Your task to perform on an android device: turn on javascript in the chrome app Image 0: 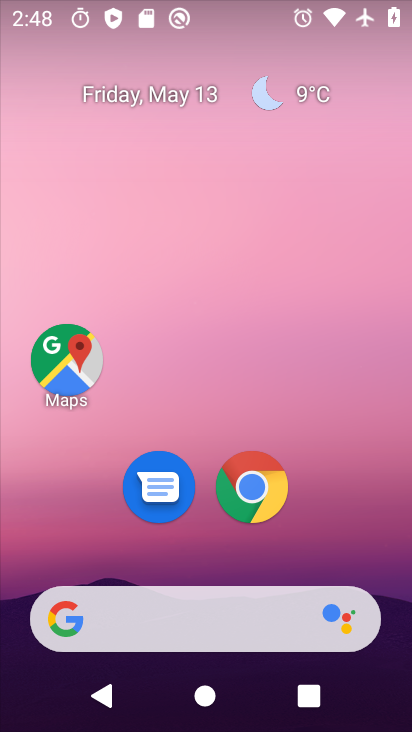
Step 0: click (253, 488)
Your task to perform on an android device: turn on javascript in the chrome app Image 1: 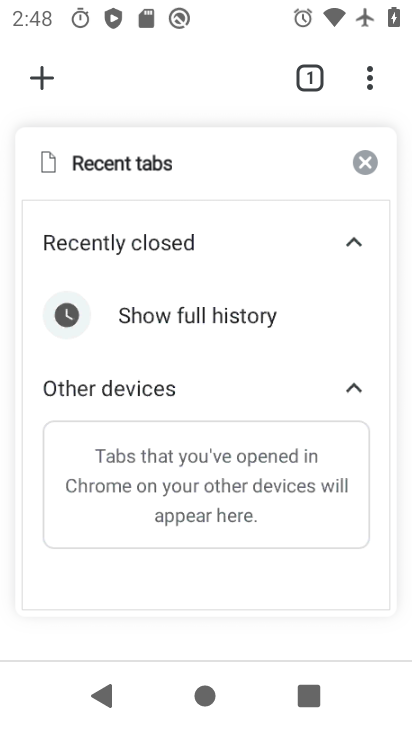
Step 1: click (204, 696)
Your task to perform on an android device: turn on javascript in the chrome app Image 2: 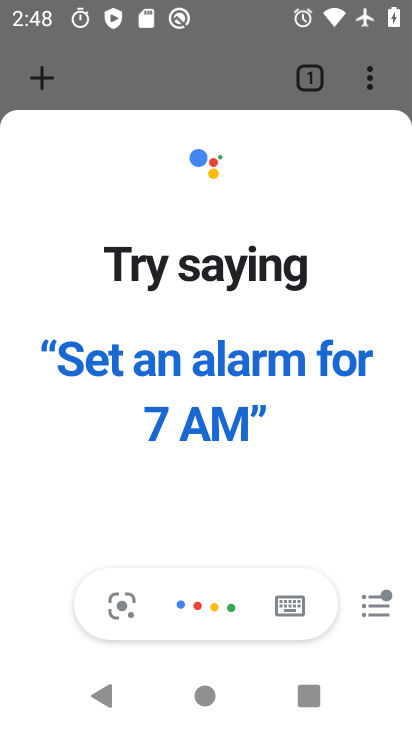
Step 2: click (136, 72)
Your task to perform on an android device: turn on javascript in the chrome app Image 3: 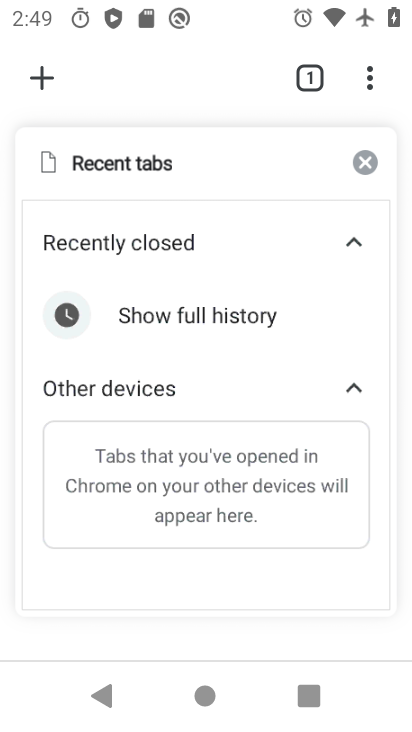
Step 3: click (362, 160)
Your task to perform on an android device: turn on javascript in the chrome app Image 4: 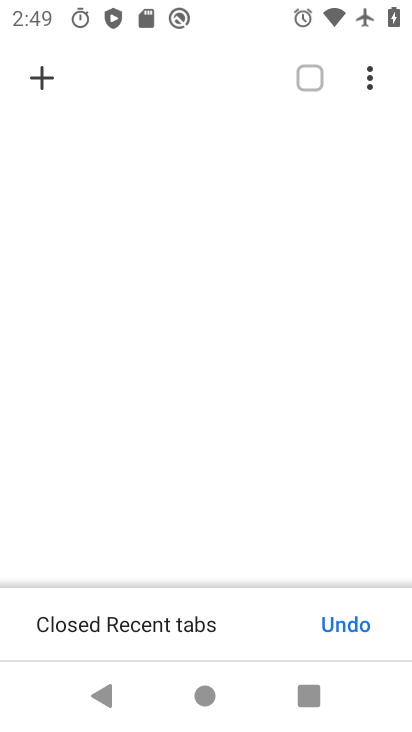
Step 4: click (199, 714)
Your task to perform on an android device: turn on javascript in the chrome app Image 5: 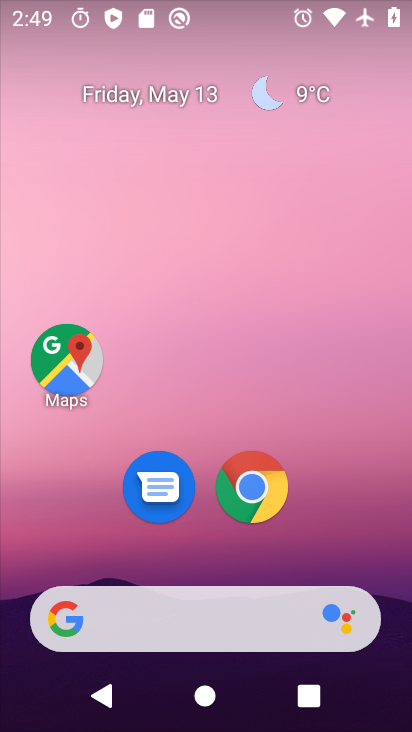
Step 5: drag from (230, 562) to (243, 121)
Your task to perform on an android device: turn on javascript in the chrome app Image 6: 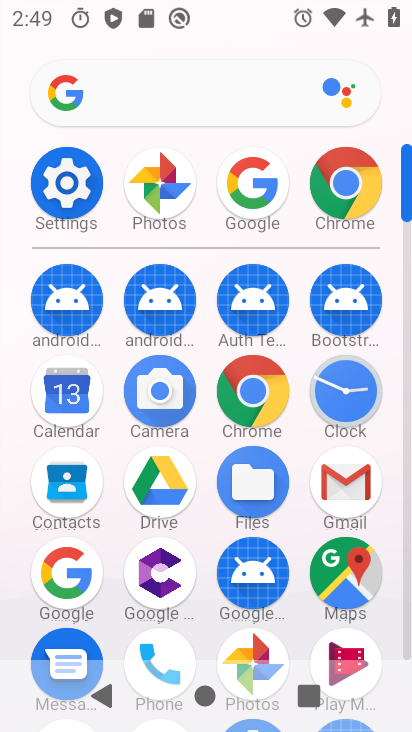
Step 6: drag from (214, 590) to (232, 338)
Your task to perform on an android device: turn on javascript in the chrome app Image 7: 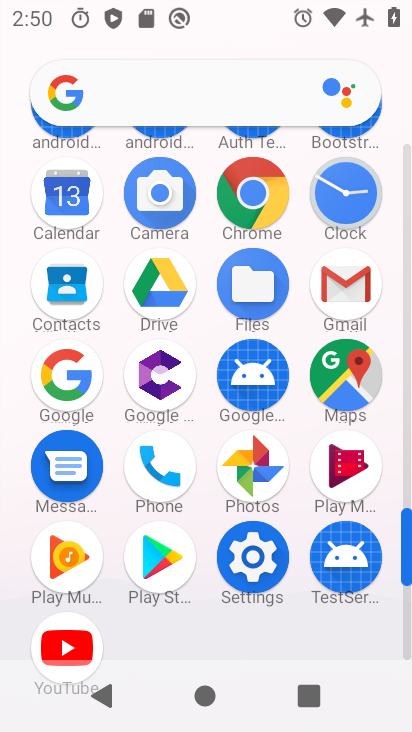
Step 7: click (259, 180)
Your task to perform on an android device: turn on javascript in the chrome app Image 8: 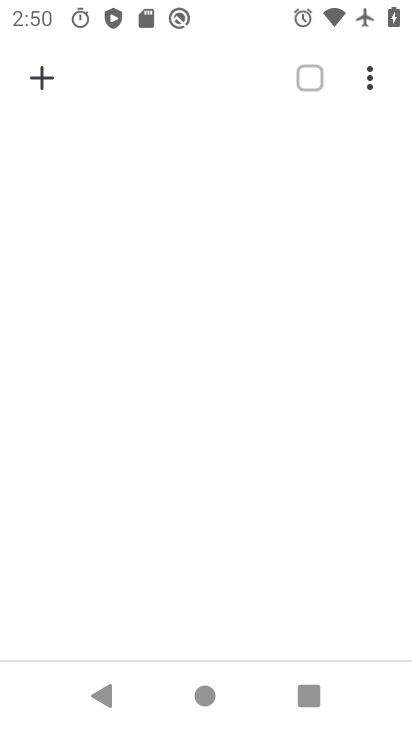
Step 8: click (360, 79)
Your task to perform on an android device: turn on javascript in the chrome app Image 9: 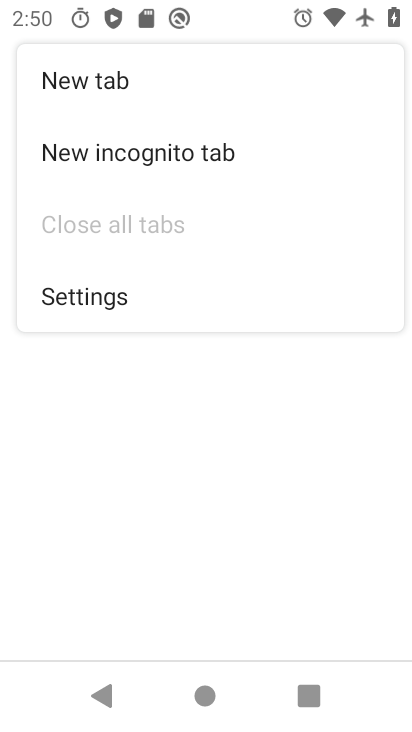
Step 9: drag from (114, 320) to (78, 444)
Your task to perform on an android device: turn on javascript in the chrome app Image 10: 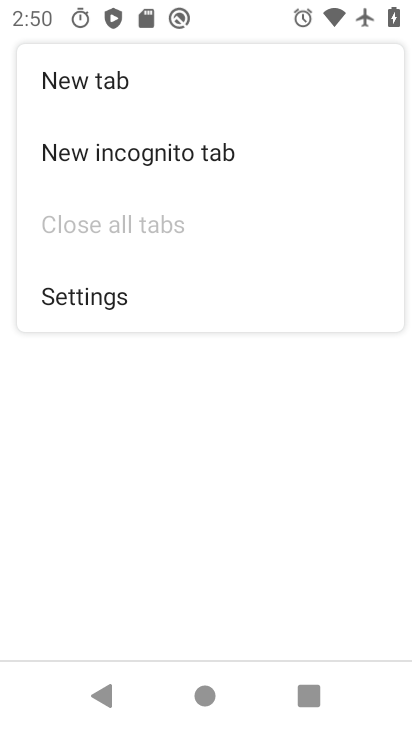
Step 10: click (113, 303)
Your task to perform on an android device: turn on javascript in the chrome app Image 11: 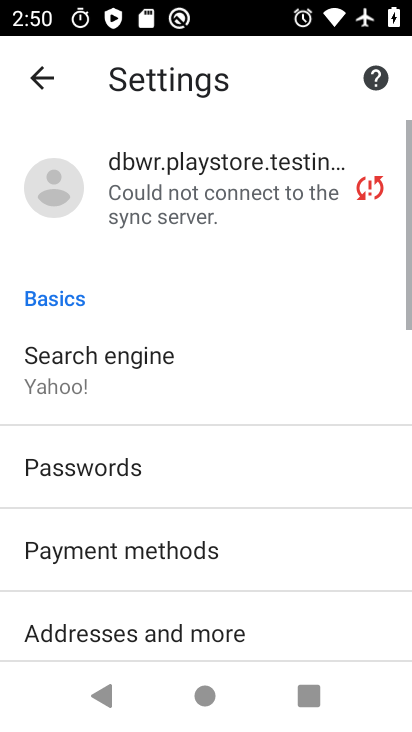
Step 11: drag from (220, 593) to (260, 164)
Your task to perform on an android device: turn on javascript in the chrome app Image 12: 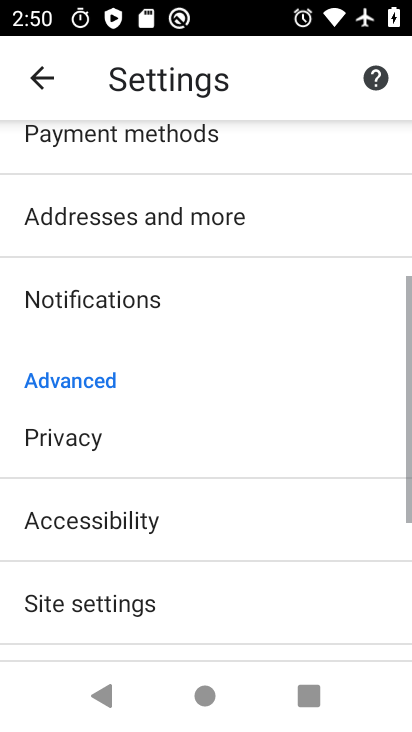
Step 12: drag from (278, 561) to (254, 247)
Your task to perform on an android device: turn on javascript in the chrome app Image 13: 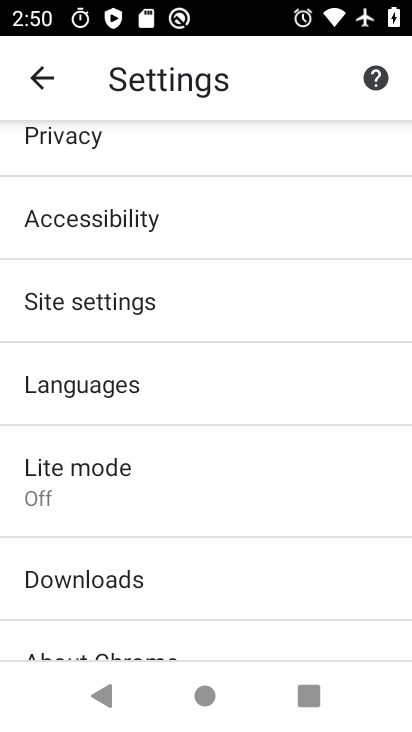
Step 13: click (115, 300)
Your task to perform on an android device: turn on javascript in the chrome app Image 14: 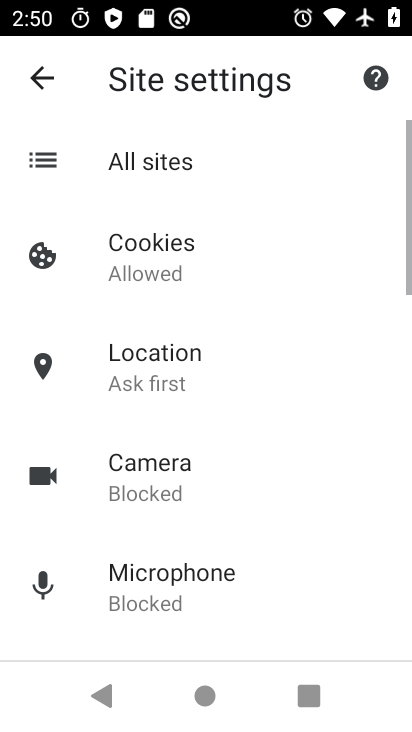
Step 14: drag from (287, 575) to (251, 153)
Your task to perform on an android device: turn on javascript in the chrome app Image 15: 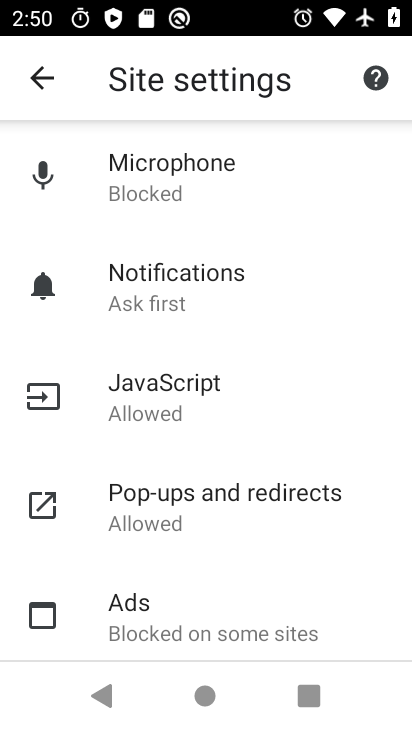
Step 15: click (135, 381)
Your task to perform on an android device: turn on javascript in the chrome app Image 16: 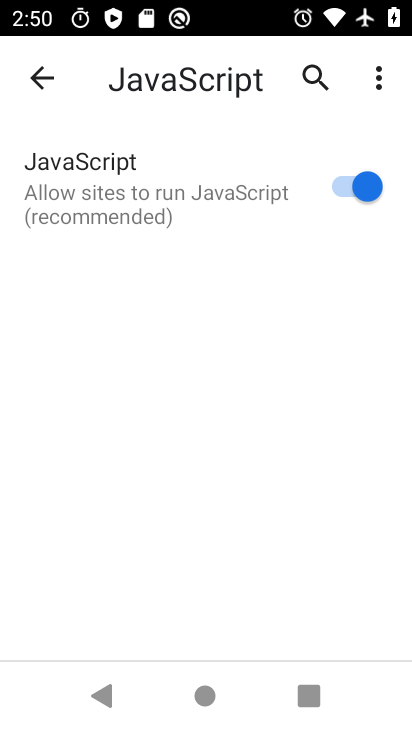
Step 16: task complete